Your task to perform on an android device: search for starred emails in the gmail app Image 0: 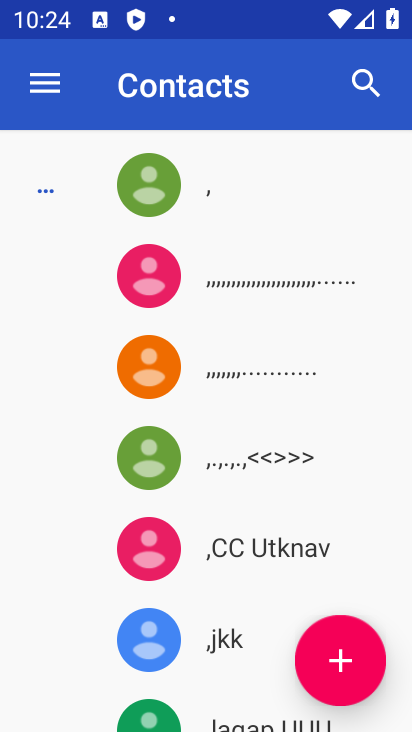
Step 0: press home button
Your task to perform on an android device: search for starred emails in the gmail app Image 1: 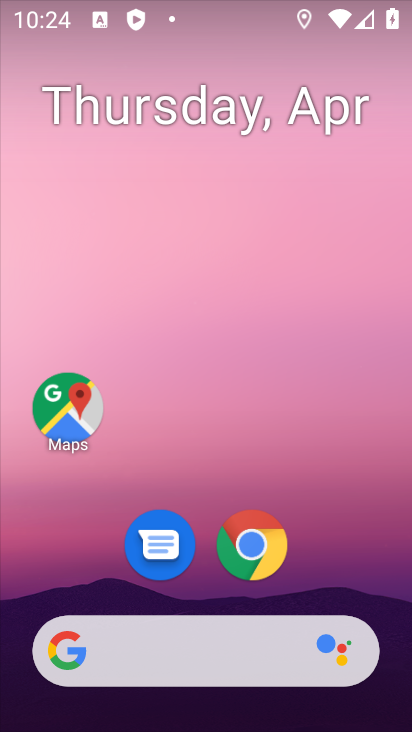
Step 1: drag from (32, 529) to (216, 287)
Your task to perform on an android device: search for starred emails in the gmail app Image 2: 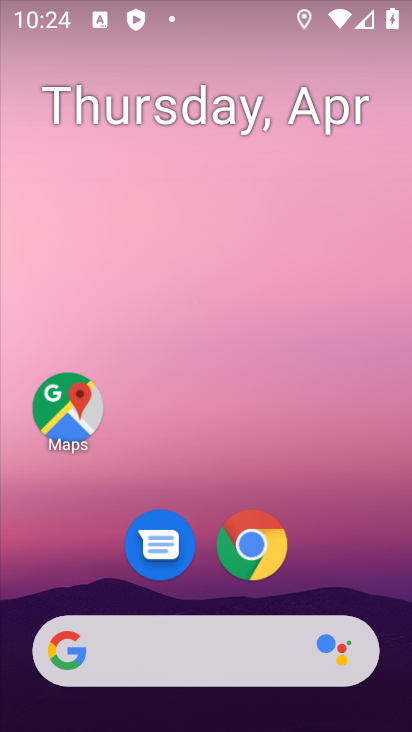
Step 2: drag from (20, 651) to (203, 288)
Your task to perform on an android device: search for starred emails in the gmail app Image 3: 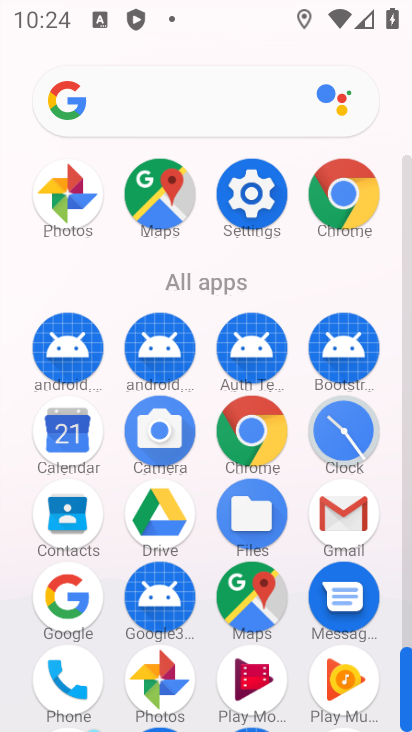
Step 3: click (346, 511)
Your task to perform on an android device: search for starred emails in the gmail app Image 4: 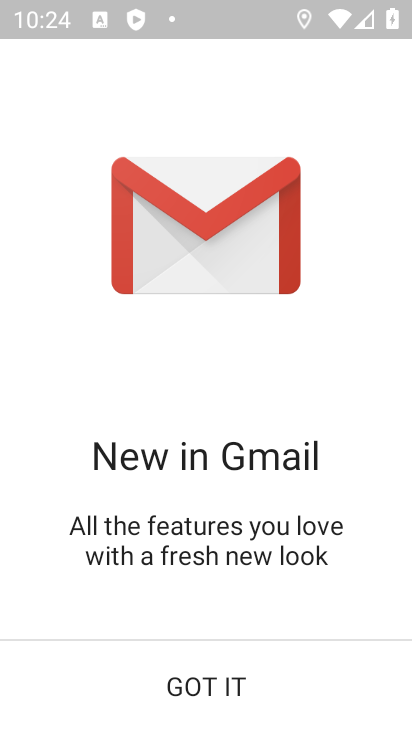
Step 4: click (79, 677)
Your task to perform on an android device: search for starred emails in the gmail app Image 5: 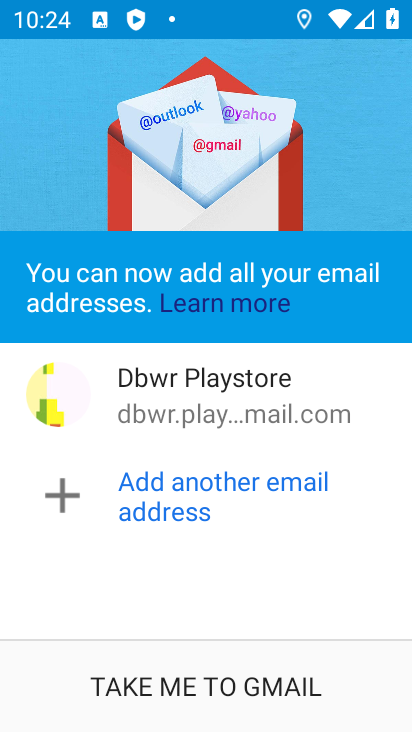
Step 5: click (185, 691)
Your task to perform on an android device: search for starred emails in the gmail app Image 6: 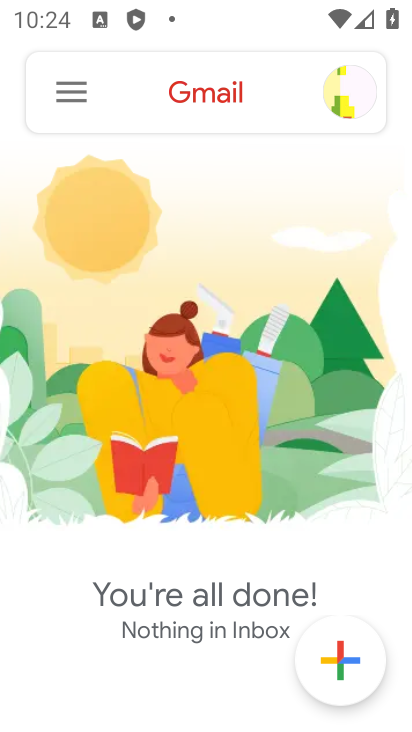
Step 6: click (59, 83)
Your task to perform on an android device: search for starred emails in the gmail app Image 7: 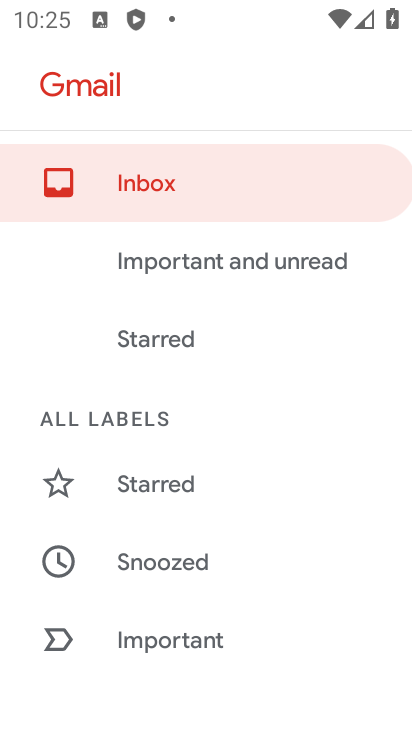
Step 7: click (167, 495)
Your task to perform on an android device: search for starred emails in the gmail app Image 8: 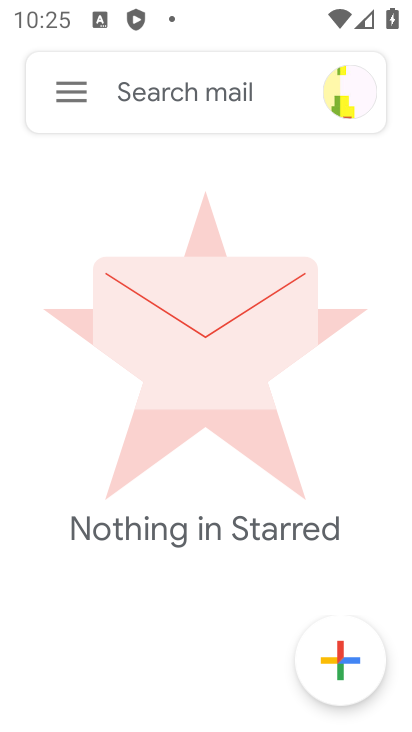
Step 8: task complete